Your task to perform on an android device: all mails in gmail Image 0: 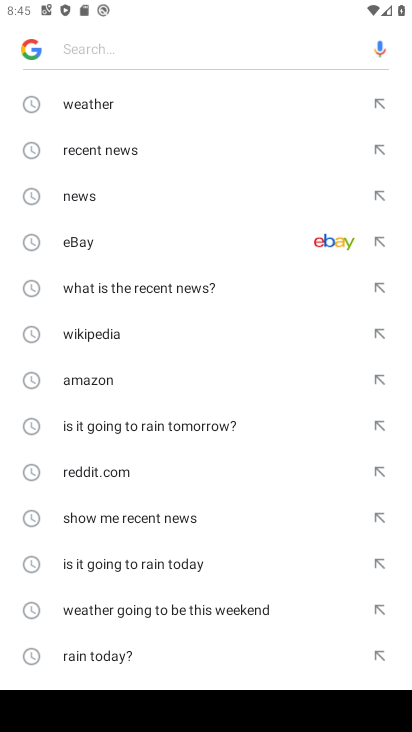
Step 0: press home button
Your task to perform on an android device: all mails in gmail Image 1: 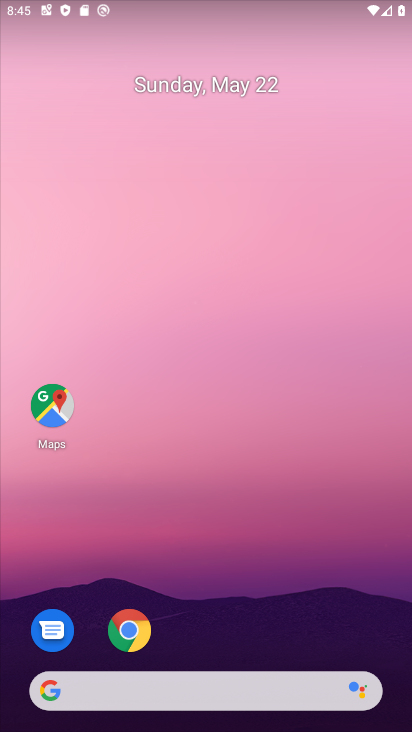
Step 1: drag from (242, 576) to (278, 197)
Your task to perform on an android device: all mails in gmail Image 2: 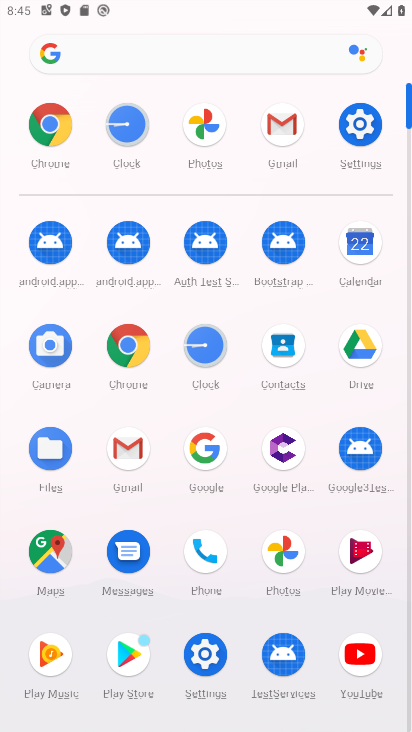
Step 2: click (284, 136)
Your task to perform on an android device: all mails in gmail Image 3: 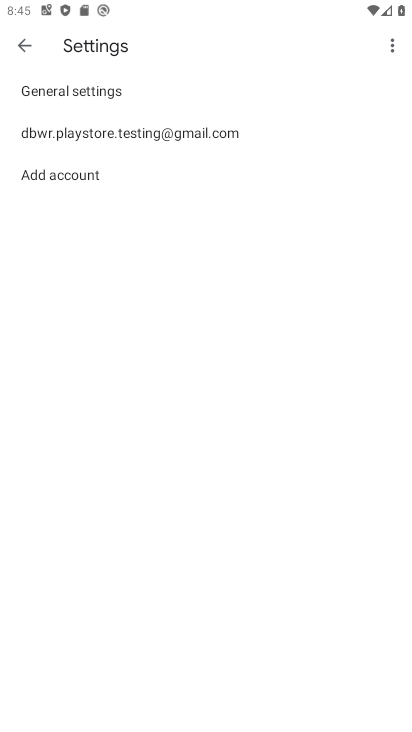
Step 3: click (23, 47)
Your task to perform on an android device: all mails in gmail Image 4: 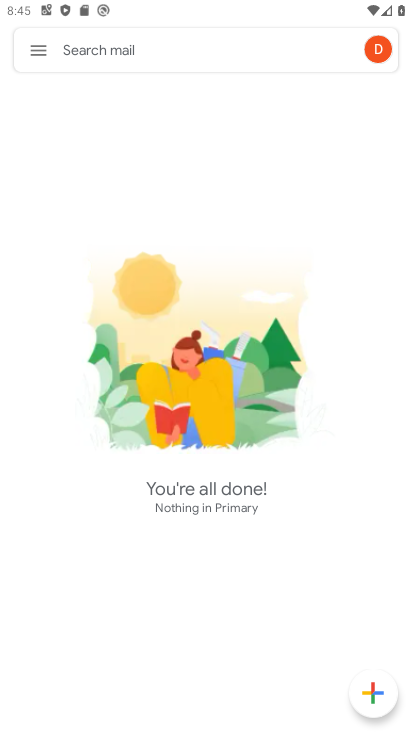
Step 4: click (41, 53)
Your task to perform on an android device: all mails in gmail Image 5: 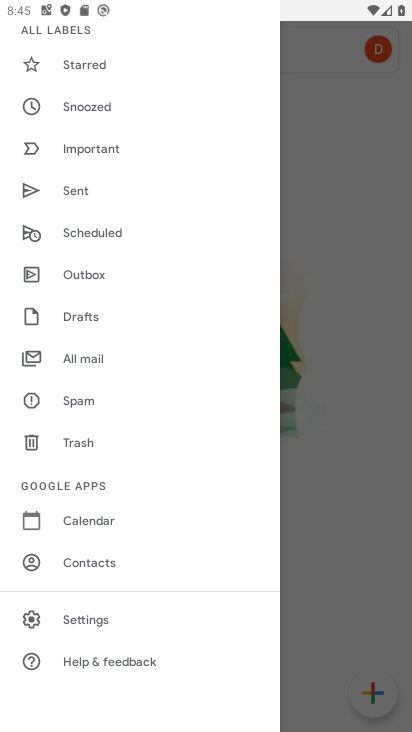
Step 5: click (89, 359)
Your task to perform on an android device: all mails in gmail Image 6: 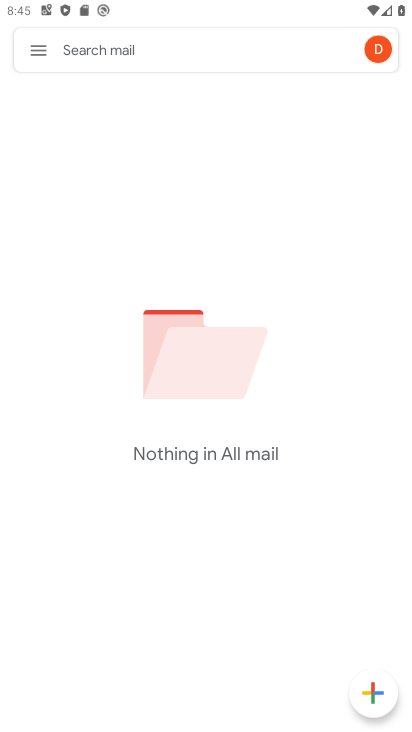
Step 6: task complete